Your task to perform on an android device: set default search engine in the chrome app Image 0: 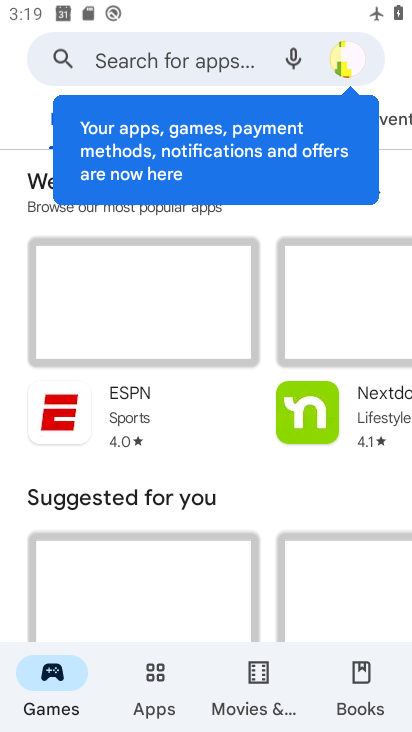
Step 0: press home button
Your task to perform on an android device: set default search engine in the chrome app Image 1: 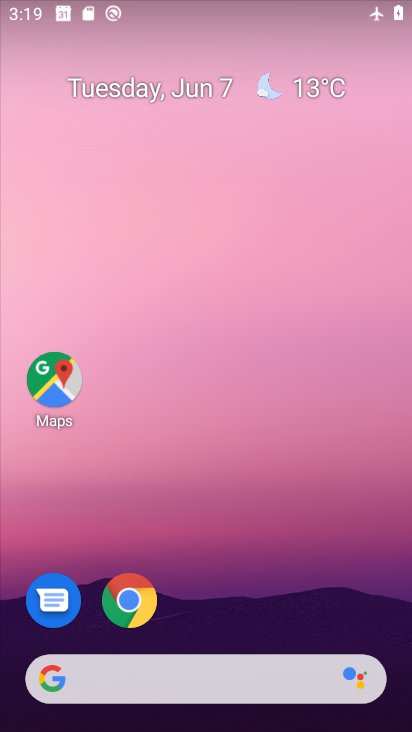
Step 1: click (133, 602)
Your task to perform on an android device: set default search engine in the chrome app Image 2: 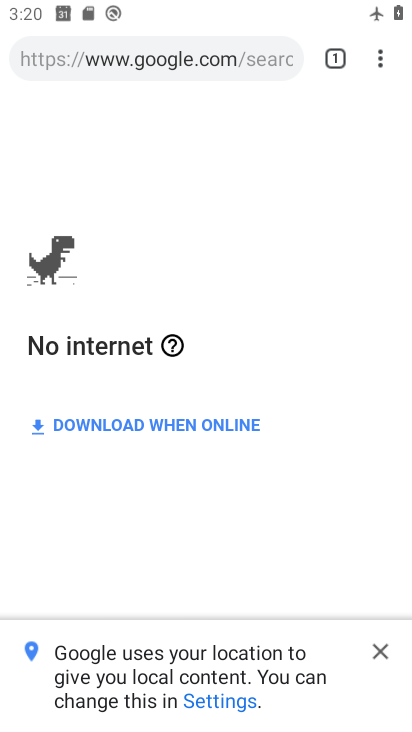
Step 2: click (375, 48)
Your task to perform on an android device: set default search engine in the chrome app Image 3: 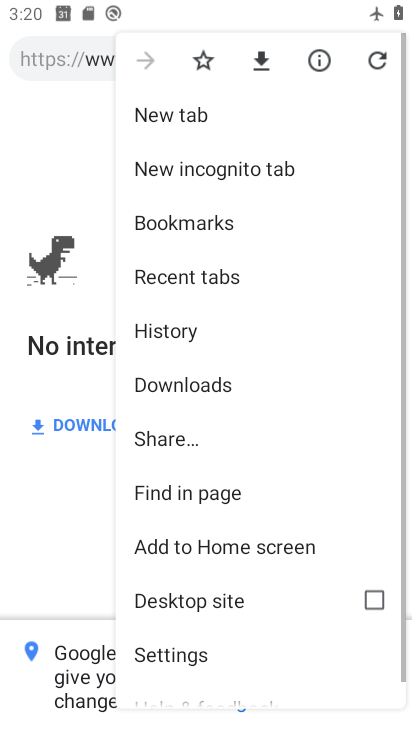
Step 3: drag from (210, 502) to (272, 35)
Your task to perform on an android device: set default search engine in the chrome app Image 4: 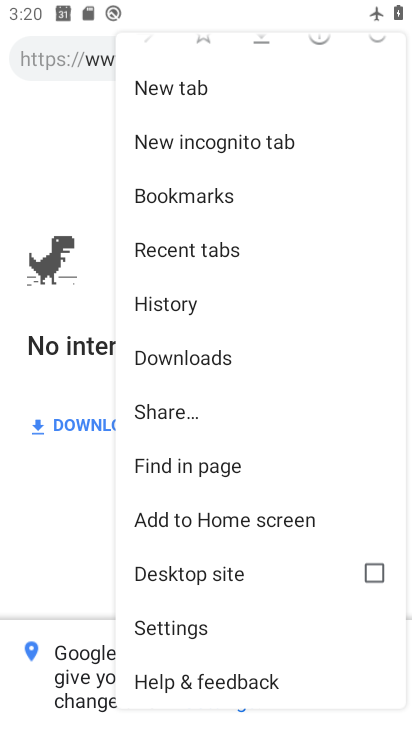
Step 4: click (197, 629)
Your task to perform on an android device: set default search engine in the chrome app Image 5: 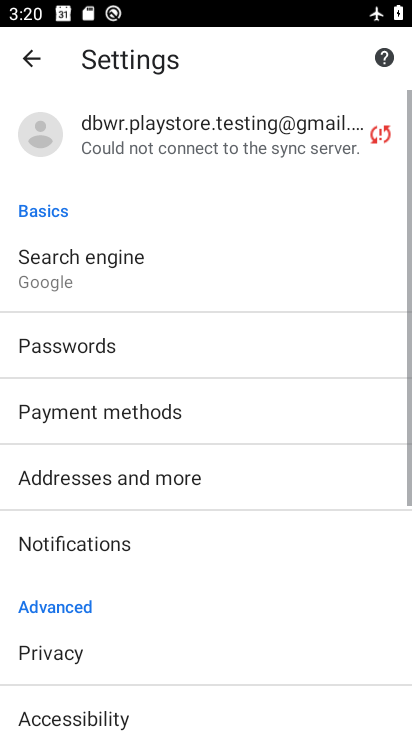
Step 5: click (179, 265)
Your task to perform on an android device: set default search engine in the chrome app Image 6: 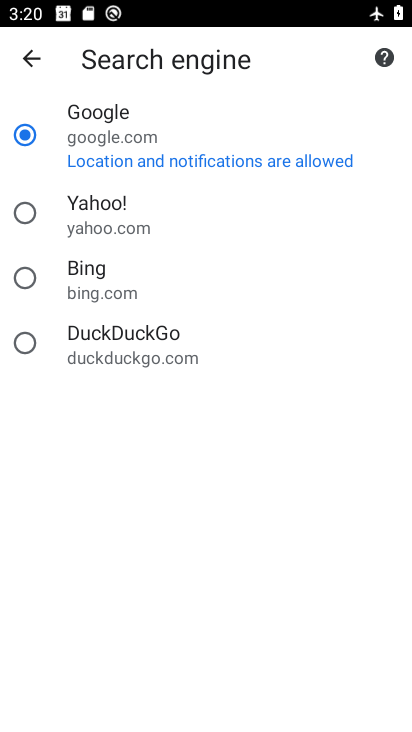
Step 6: task complete